Your task to perform on an android device: open a bookmark in the chrome app Image 0: 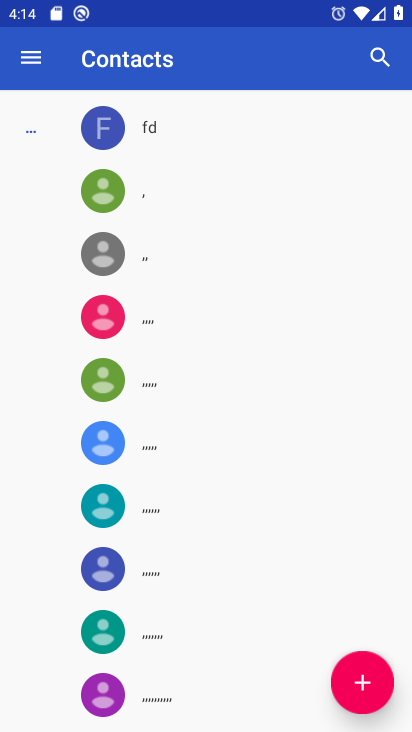
Step 0: press home button
Your task to perform on an android device: open a bookmark in the chrome app Image 1: 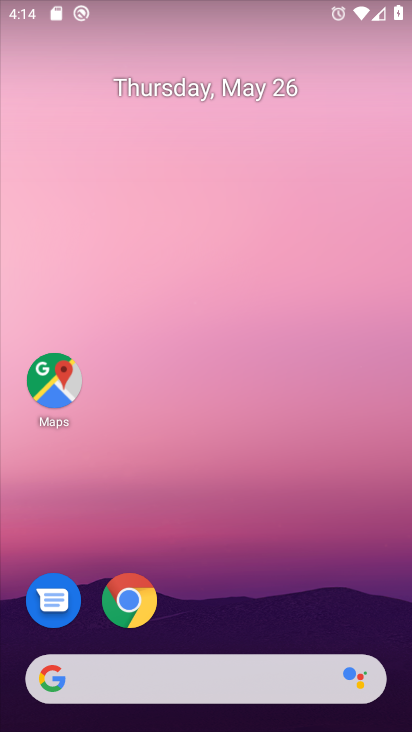
Step 1: click (131, 593)
Your task to perform on an android device: open a bookmark in the chrome app Image 2: 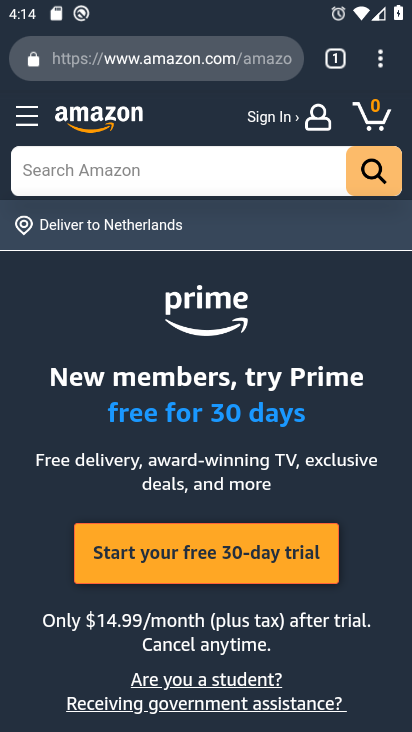
Step 2: click (383, 57)
Your task to perform on an android device: open a bookmark in the chrome app Image 3: 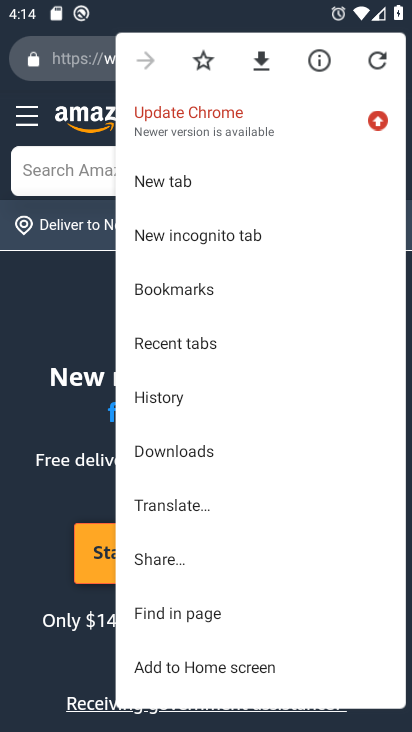
Step 3: click (195, 298)
Your task to perform on an android device: open a bookmark in the chrome app Image 4: 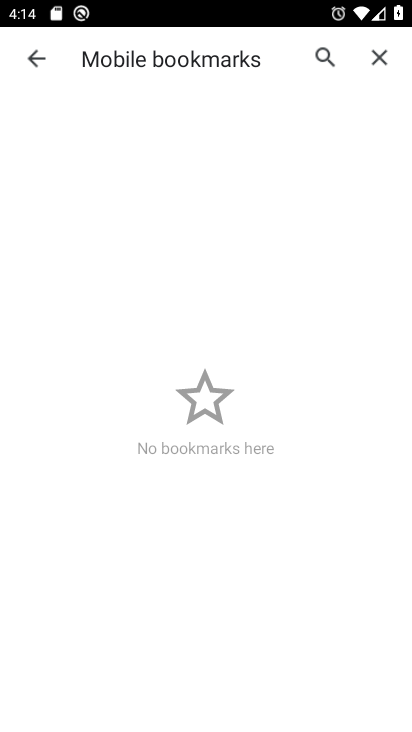
Step 4: task complete